Your task to perform on an android device: open chrome privacy settings Image 0: 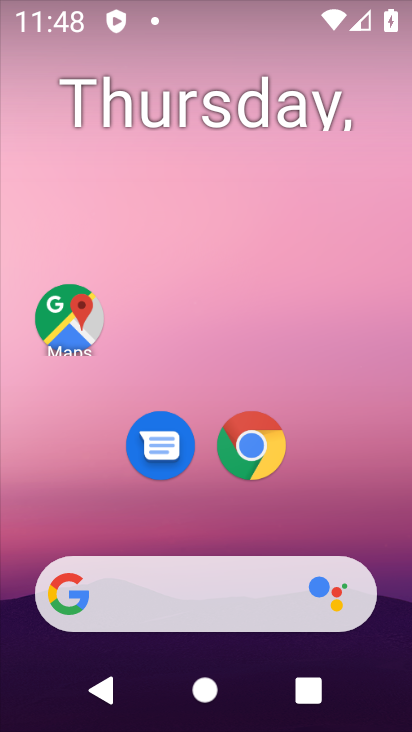
Step 0: click (250, 448)
Your task to perform on an android device: open chrome privacy settings Image 1: 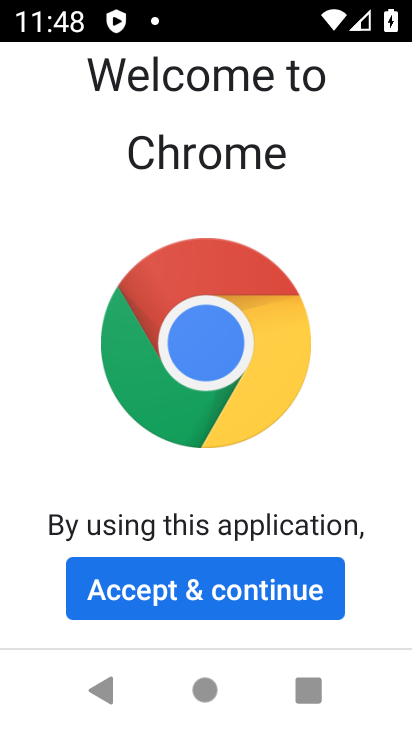
Step 1: click (206, 610)
Your task to perform on an android device: open chrome privacy settings Image 2: 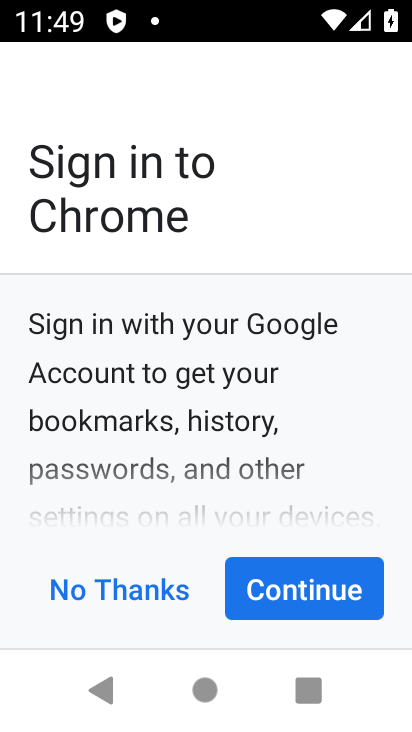
Step 2: click (337, 593)
Your task to perform on an android device: open chrome privacy settings Image 3: 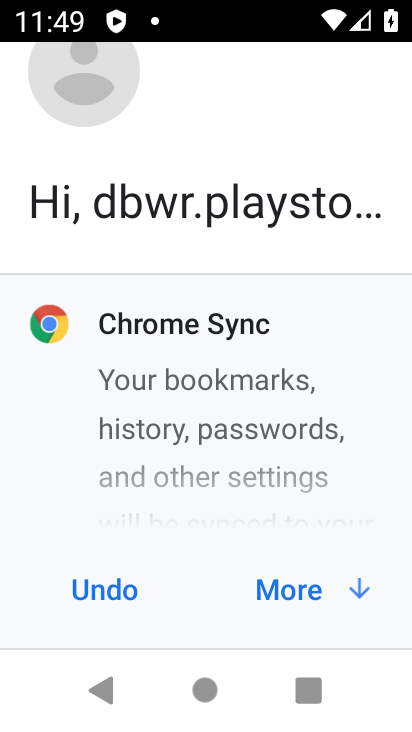
Step 3: click (323, 602)
Your task to perform on an android device: open chrome privacy settings Image 4: 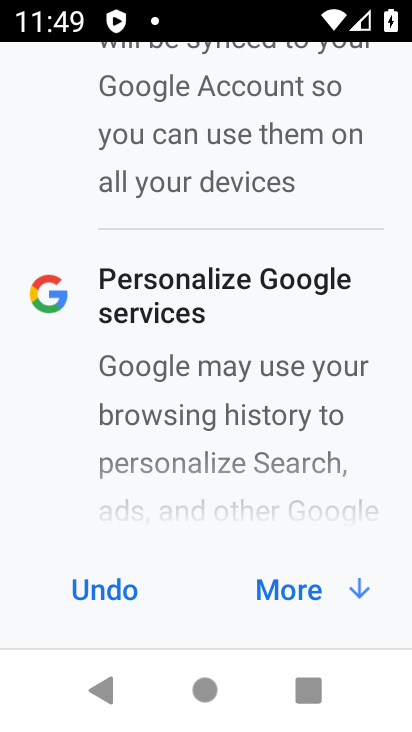
Step 4: click (290, 595)
Your task to perform on an android device: open chrome privacy settings Image 5: 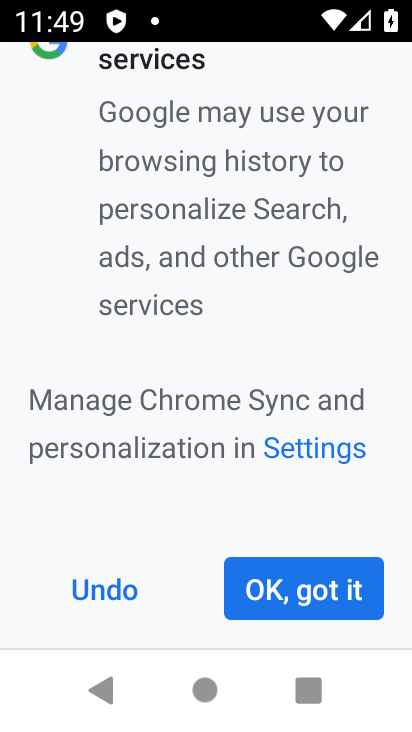
Step 5: click (342, 605)
Your task to perform on an android device: open chrome privacy settings Image 6: 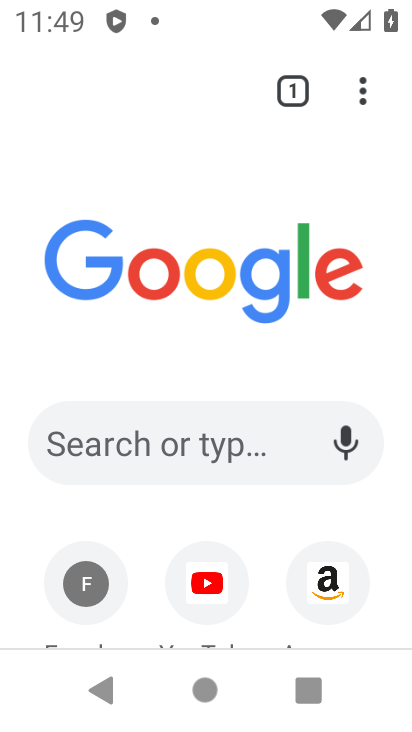
Step 6: drag from (370, 101) to (275, 477)
Your task to perform on an android device: open chrome privacy settings Image 7: 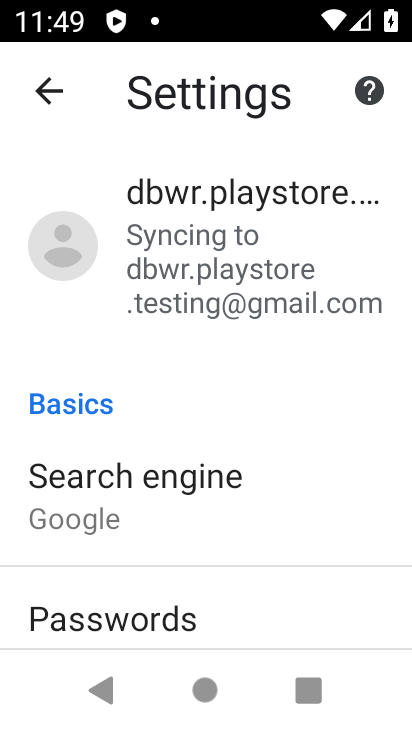
Step 7: drag from (214, 660) to (336, 157)
Your task to perform on an android device: open chrome privacy settings Image 8: 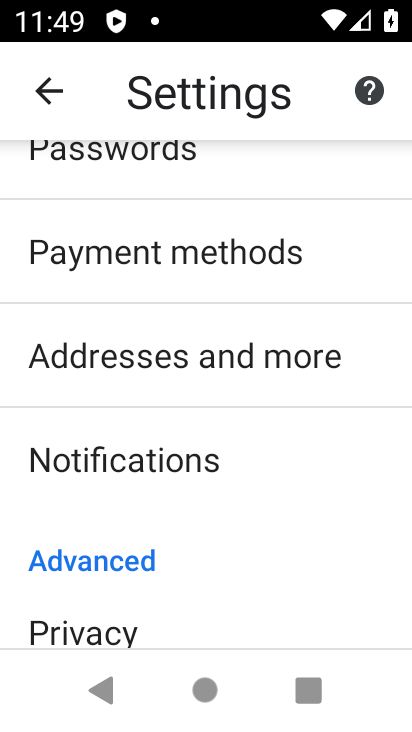
Step 8: drag from (182, 655) to (257, 306)
Your task to perform on an android device: open chrome privacy settings Image 9: 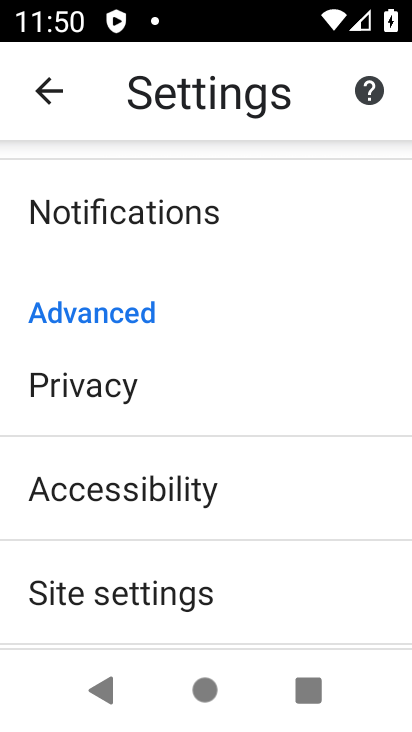
Step 9: drag from (163, 609) to (217, 358)
Your task to perform on an android device: open chrome privacy settings Image 10: 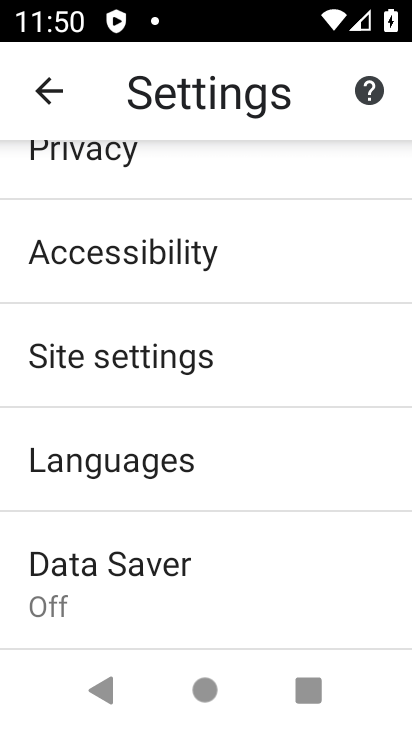
Step 10: click (178, 188)
Your task to perform on an android device: open chrome privacy settings Image 11: 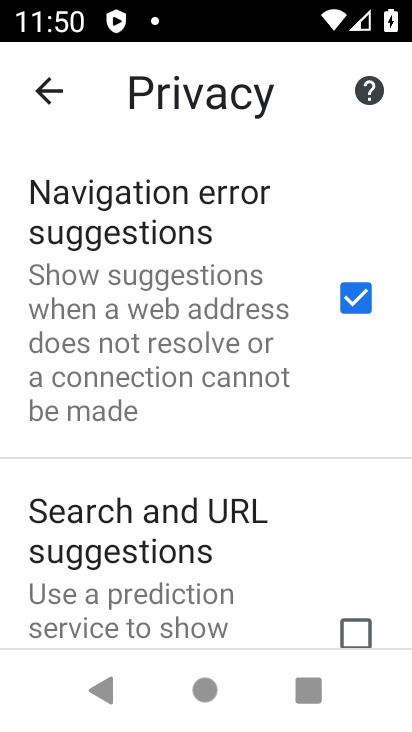
Step 11: task complete